Your task to perform on an android device: turn on the 24-hour format for clock Image 0: 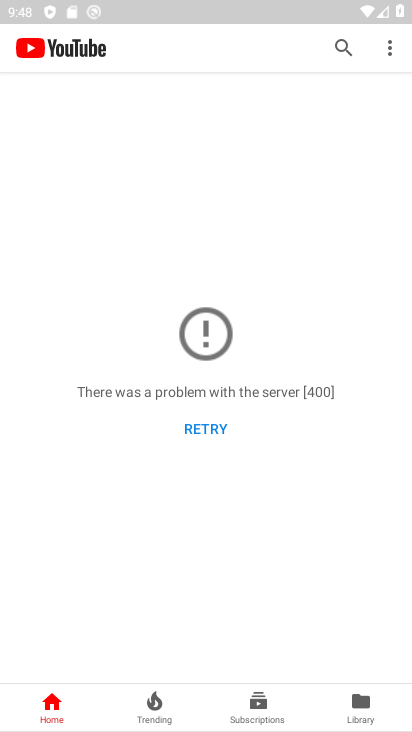
Step 0: press home button
Your task to perform on an android device: turn on the 24-hour format for clock Image 1: 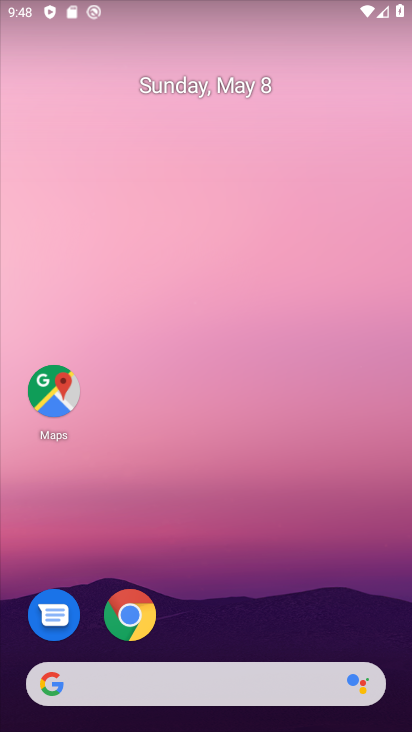
Step 1: drag from (272, 549) to (199, 1)
Your task to perform on an android device: turn on the 24-hour format for clock Image 2: 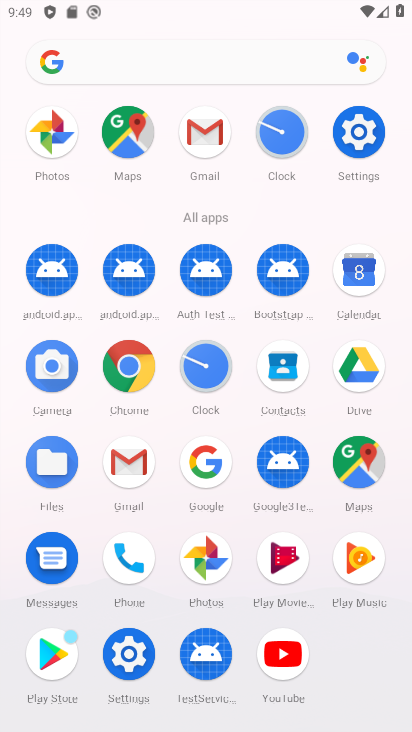
Step 2: click (211, 376)
Your task to perform on an android device: turn on the 24-hour format for clock Image 3: 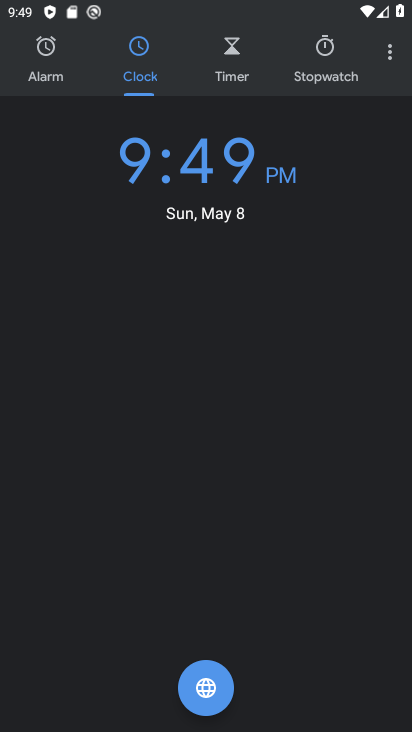
Step 3: click (387, 48)
Your task to perform on an android device: turn on the 24-hour format for clock Image 4: 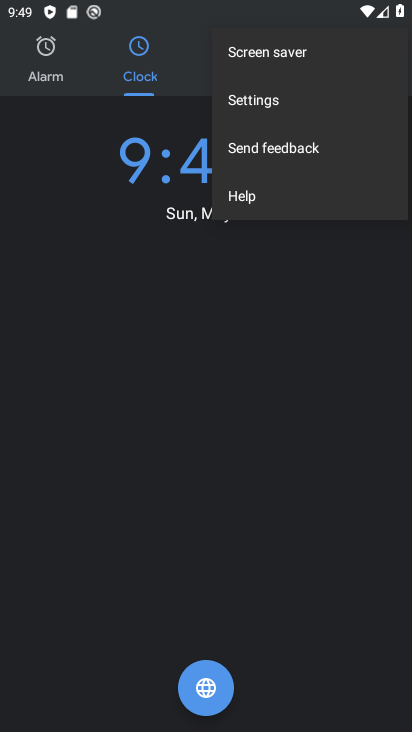
Step 4: click (278, 92)
Your task to perform on an android device: turn on the 24-hour format for clock Image 5: 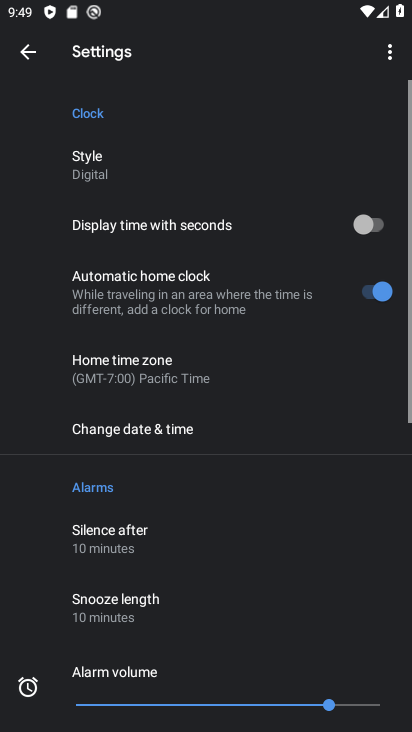
Step 5: drag from (205, 580) to (343, 94)
Your task to perform on an android device: turn on the 24-hour format for clock Image 6: 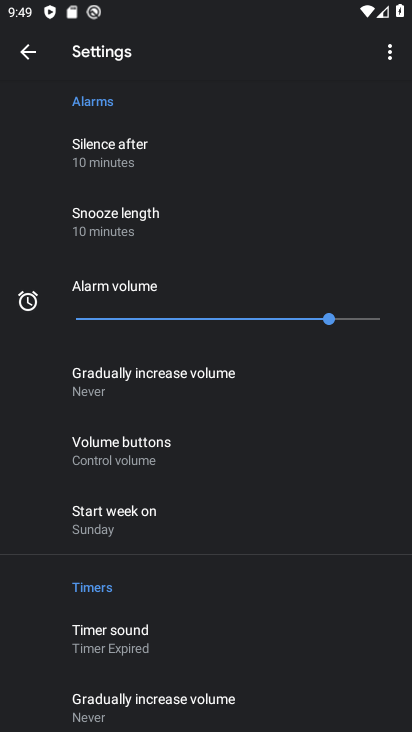
Step 6: drag from (221, 547) to (301, 21)
Your task to perform on an android device: turn on the 24-hour format for clock Image 7: 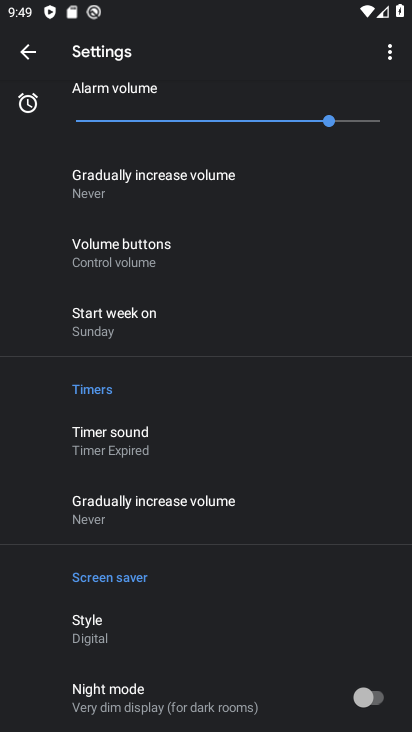
Step 7: drag from (249, 542) to (286, 43)
Your task to perform on an android device: turn on the 24-hour format for clock Image 8: 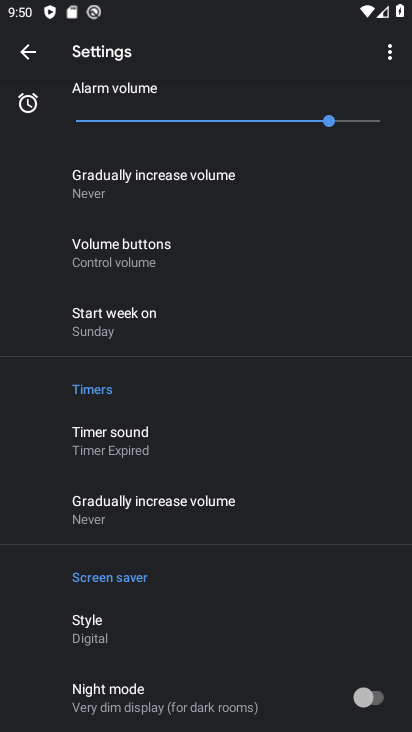
Step 8: drag from (175, 607) to (284, 85)
Your task to perform on an android device: turn on the 24-hour format for clock Image 9: 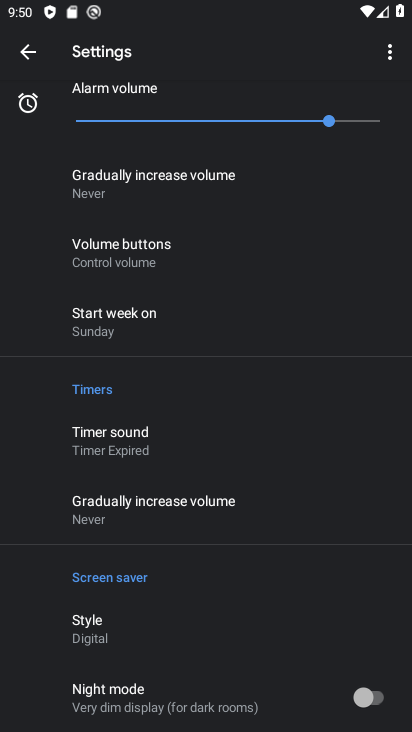
Step 9: drag from (273, 369) to (254, 642)
Your task to perform on an android device: turn on the 24-hour format for clock Image 10: 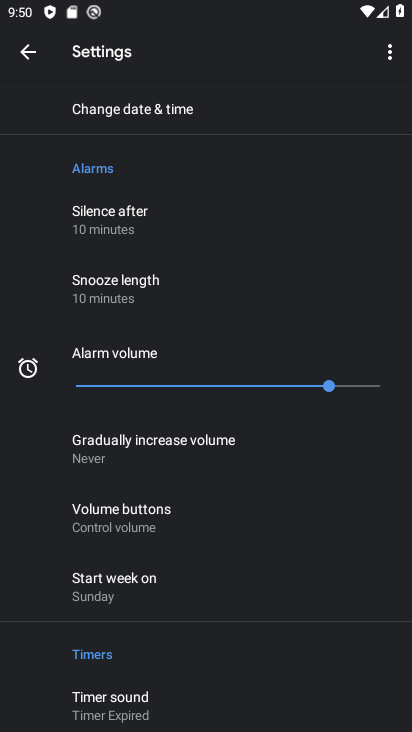
Step 10: click (187, 110)
Your task to perform on an android device: turn on the 24-hour format for clock Image 11: 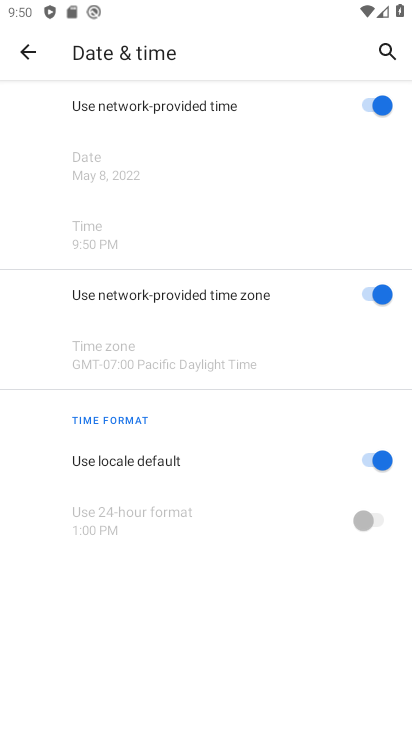
Step 11: click (376, 453)
Your task to perform on an android device: turn on the 24-hour format for clock Image 12: 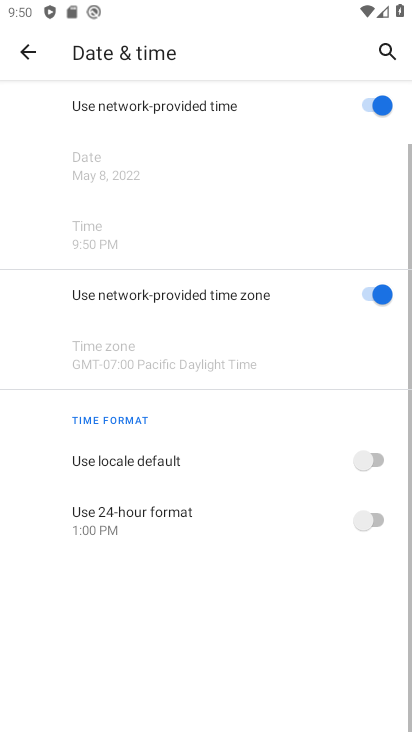
Step 12: click (385, 517)
Your task to perform on an android device: turn on the 24-hour format for clock Image 13: 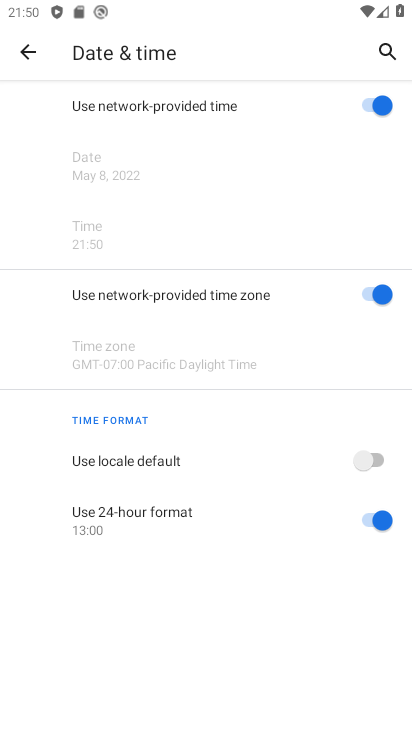
Step 13: task complete